Your task to perform on an android device: delete browsing data in the chrome app Image 0: 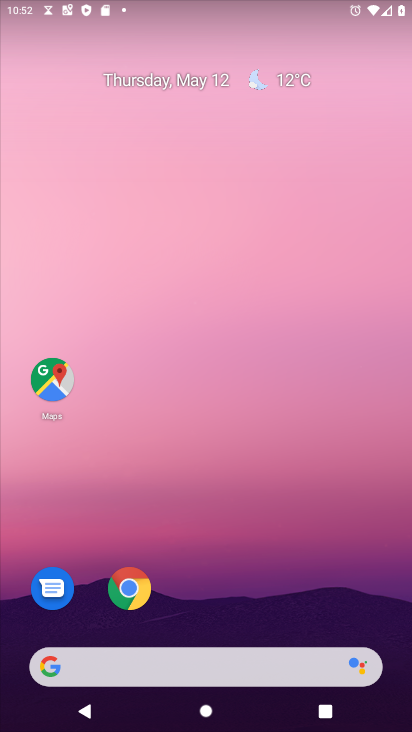
Step 0: click (128, 586)
Your task to perform on an android device: delete browsing data in the chrome app Image 1: 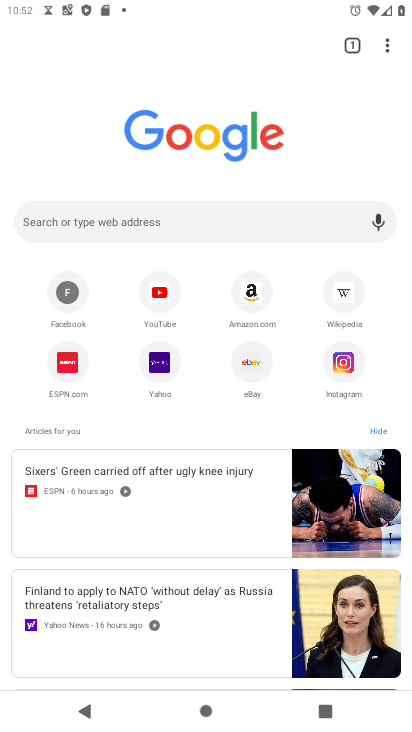
Step 1: click (386, 41)
Your task to perform on an android device: delete browsing data in the chrome app Image 2: 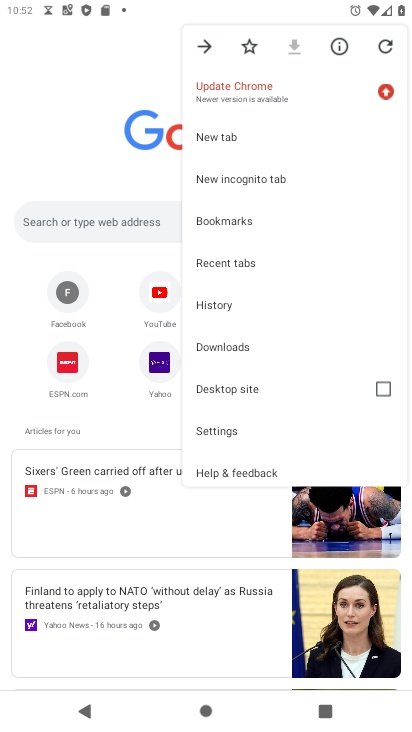
Step 2: click (236, 386)
Your task to perform on an android device: delete browsing data in the chrome app Image 3: 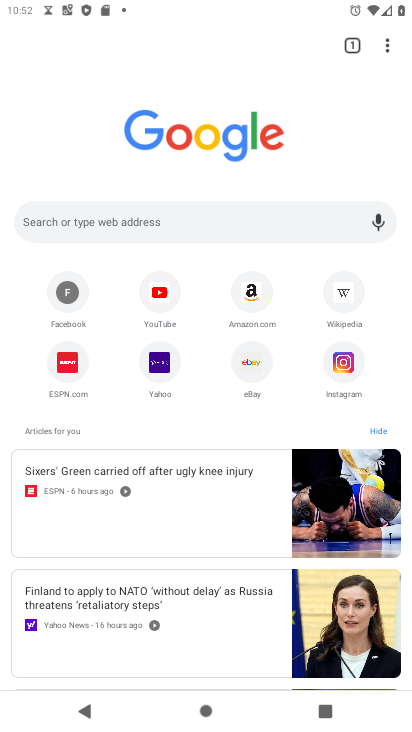
Step 3: click (387, 49)
Your task to perform on an android device: delete browsing data in the chrome app Image 4: 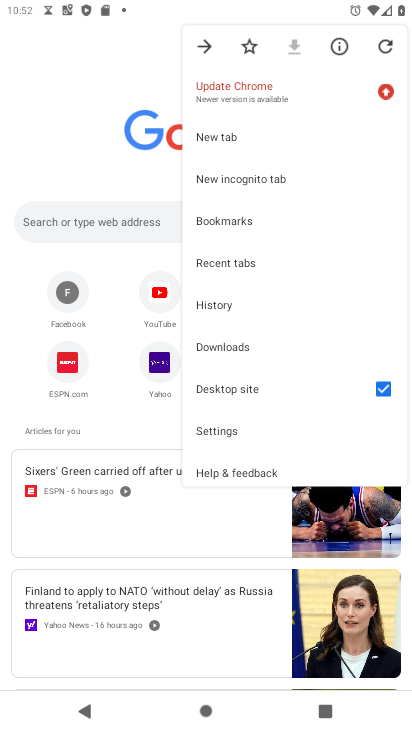
Step 4: click (225, 429)
Your task to perform on an android device: delete browsing data in the chrome app Image 5: 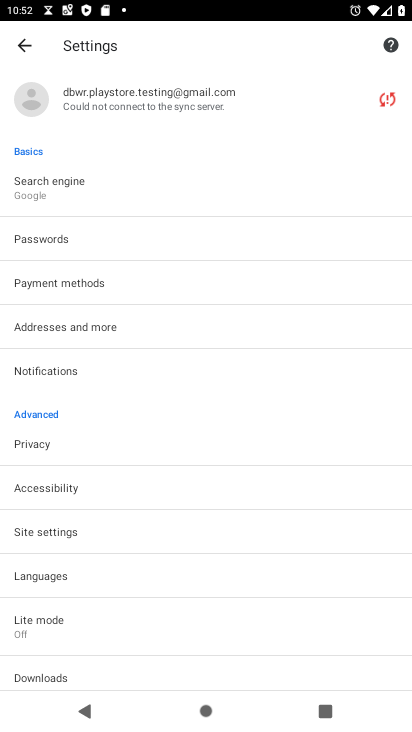
Step 5: click (39, 444)
Your task to perform on an android device: delete browsing data in the chrome app Image 6: 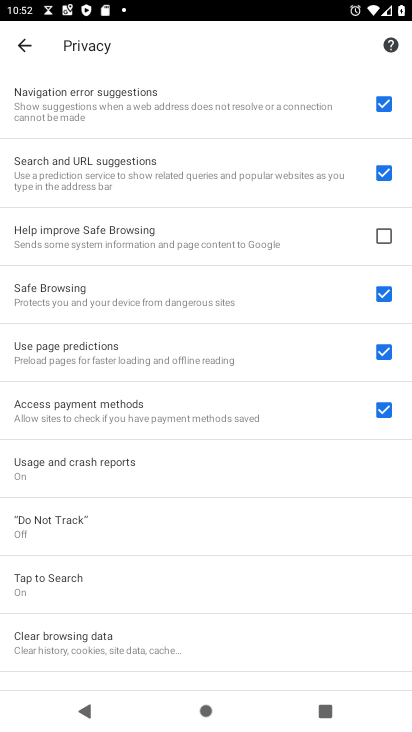
Step 6: click (73, 636)
Your task to perform on an android device: delete browsing data in the chrome app Image 7: 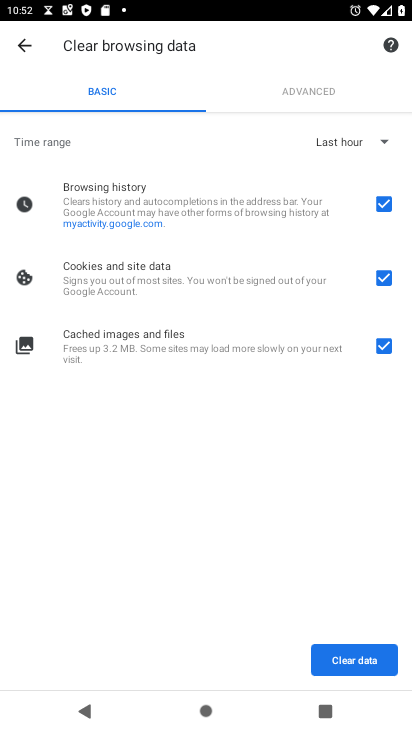
Step 7: click (349, 666)
Your task to perform on an android device: delete browsing data in the chrome app Image 8: 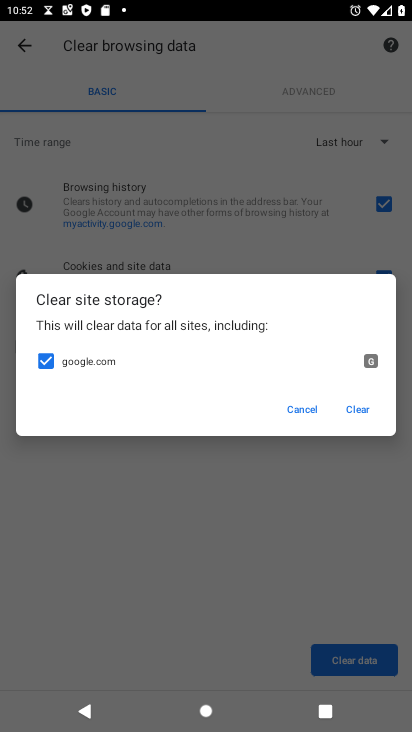
Step 8: click (364, 408)
Your task to perform on an android device: delete browsing data in the chrome app Image 9: 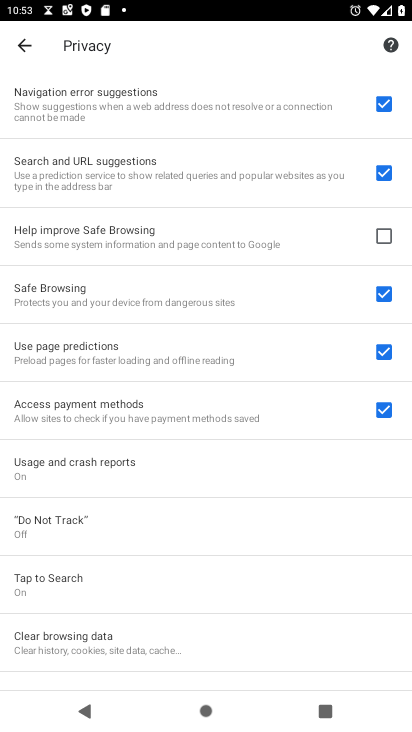
Step 9: task complete